Your task to perform on an android device: search for starred emails in the gmail app Image 0: 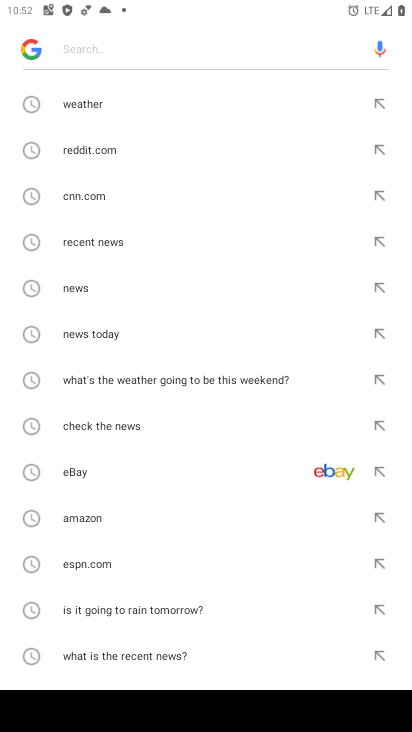
Step 0: press home button
Your task to perform on an android device: search for starred emails in the gmail app Image 1: 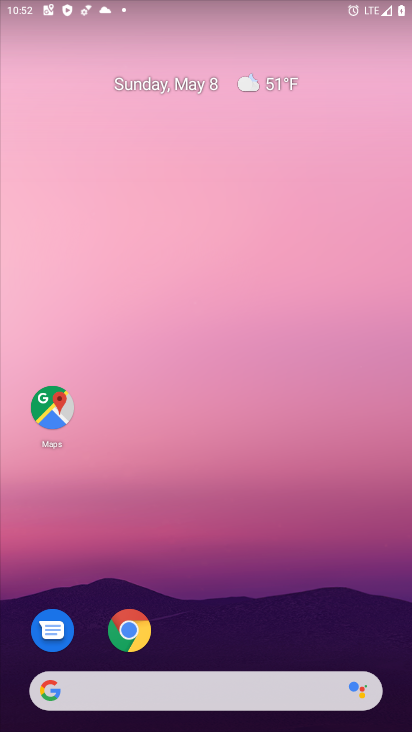
Step 1: drag from (367, 626) to (282, 75)
Your task to perform on an android device: search for starred emails in the gmail app Image 2: 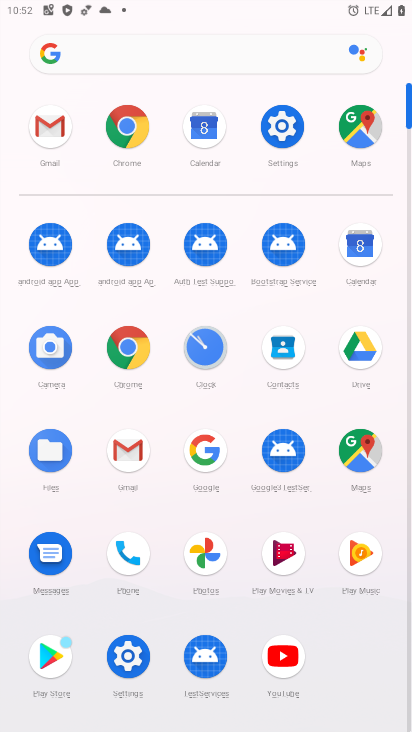
Step 2: click (134, 460)
Your task to perform on an android device: search for starred emails in the gmail app Image 3: 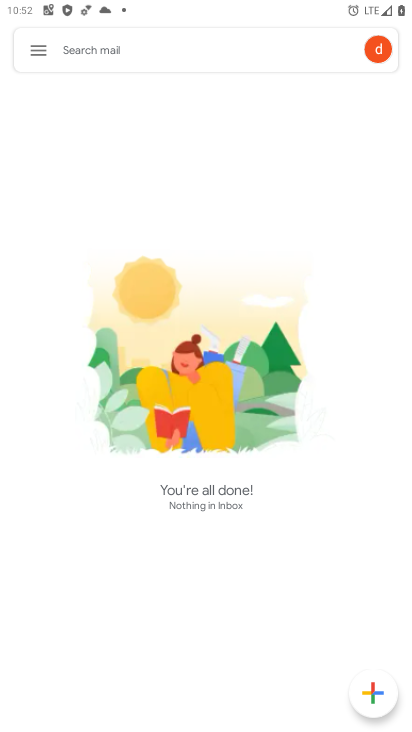
Step 3: click (50, 66)
Your task to perform on an android device: search for starred emails in the gmail app Image 4: 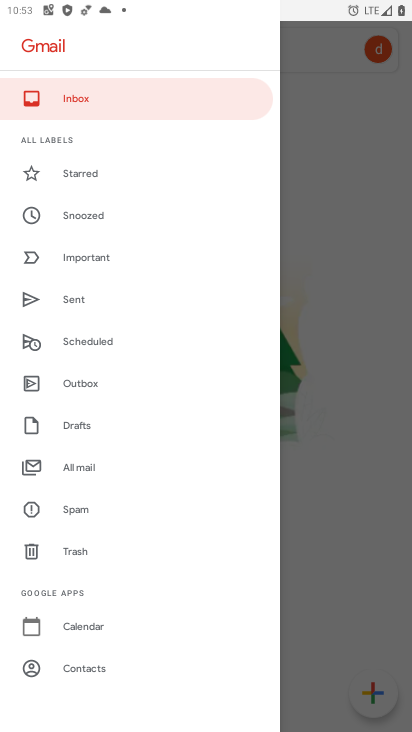
Step 4: click (138, 176)
Your task to perform on an android device: search for starred emails in the gmail app Image 5: 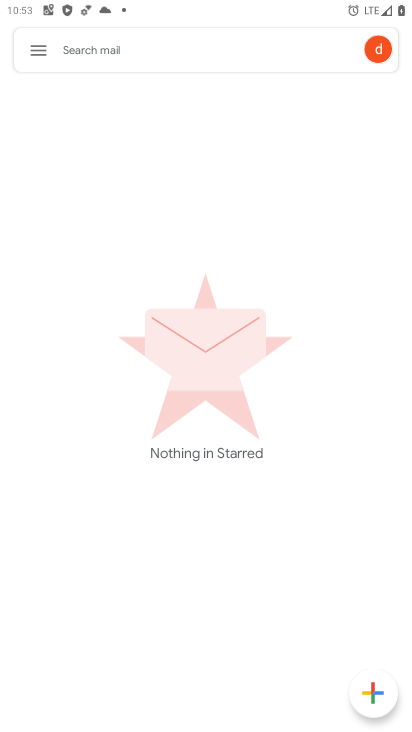
Step 5: task complete